Your task to perform on an android device: Do I have any events tomorrow? Image 0: 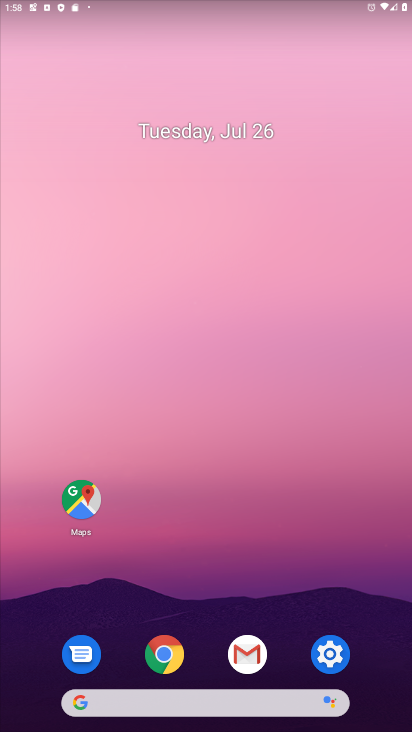
Step 0: drag from (218, 711) to (184, 107)
Your task to perform on an android device: Do I have any events tomorrow? Image 1: 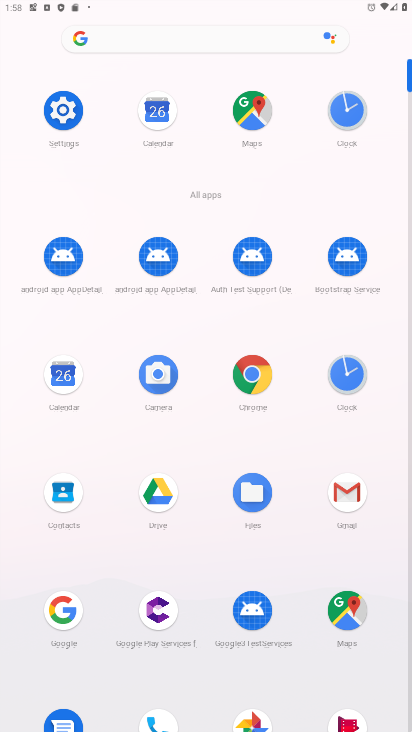
Step 1: click (71, 372)
Your task to perform on an android device: Do I have any events tomorrow? Image 2: 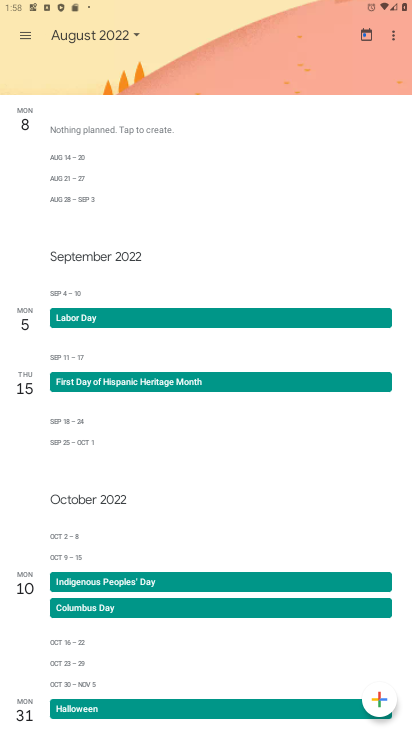
Step 2: click (25, 45)
Your task to perform on an android device: Do I have any events tomorrow? Image 3: 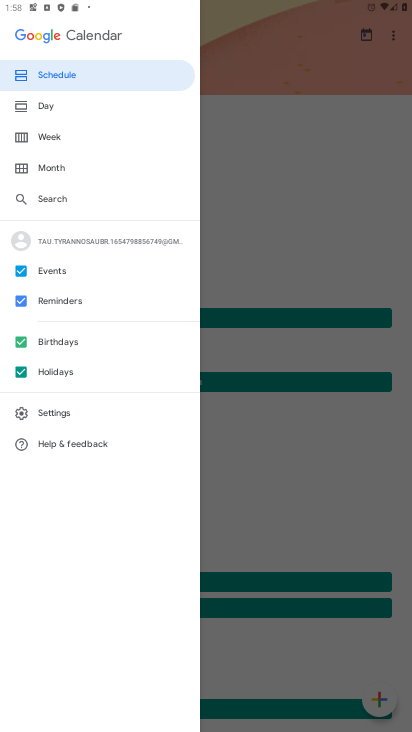
Step 3: click (52, 160)
Your task to perform on an android device: Do I have any events tomorrow? Image 4: 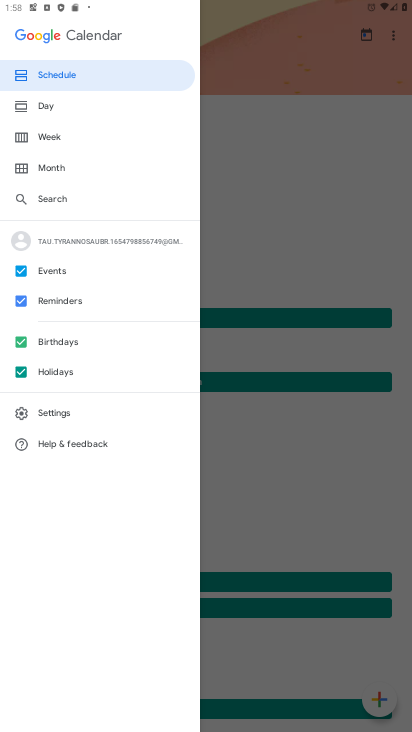
Step 4: click (51, 165)
Your task to perform on an android device: Do I have any events tomorrow? Image 5: 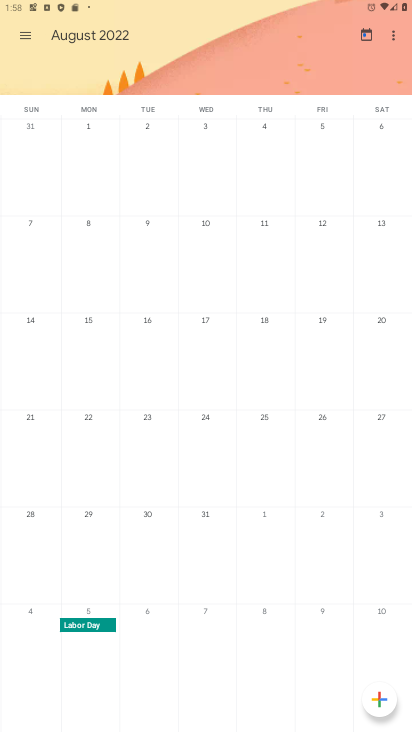
Step 5: drag from (30, 272) to (411, 289)
Your task to perform on an android device: Do I have any events tomorrow? Image 6: 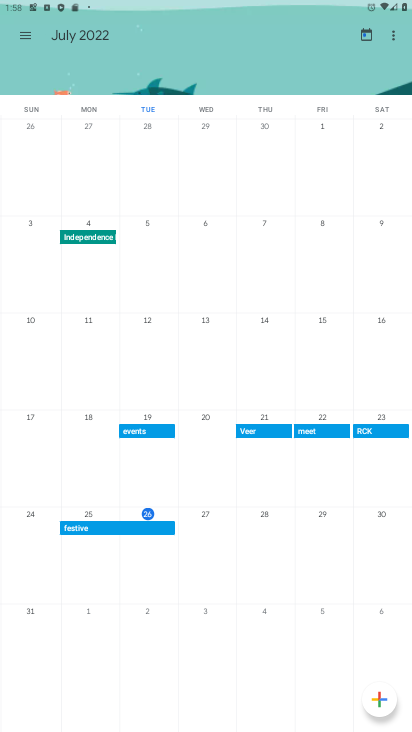
Step 6: click (202, 518)
Your task to perform on an android device: Do I have any events tomorrow? Image 7: 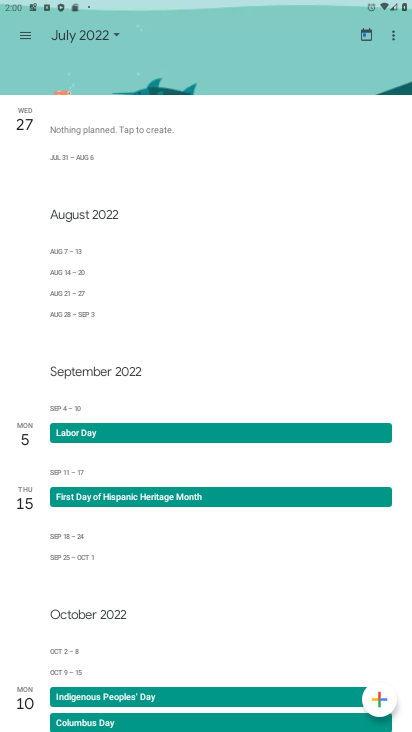
Step 7: task complete